Your task to perform on an android device: Search for sushi restaurants on Maps Image 0: 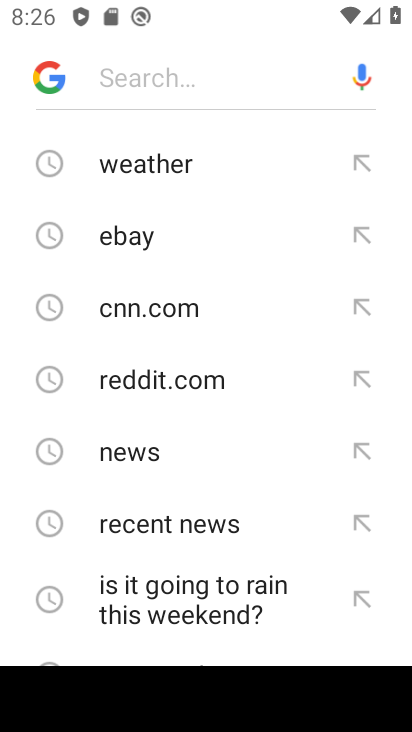
Step 0: press home button
Your task to perform on an android device: Search for sushi restaurants on Maps Image 1: 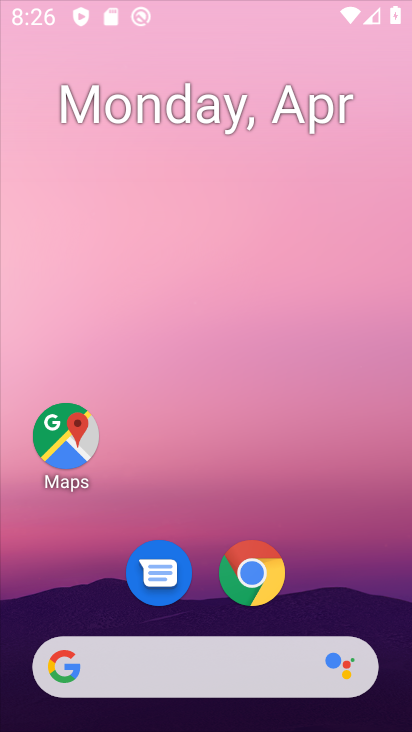
Step 1: press home button
Your task to perform on an android device: Search for sushi restaurants on Maps Image 2: 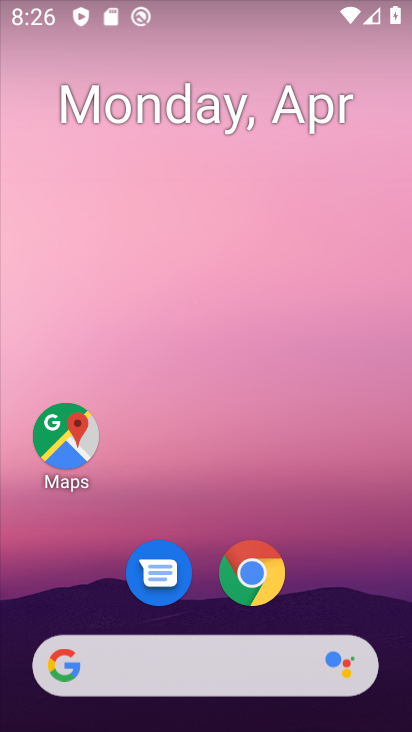
Step 2: click (54, 439)
Your task to perform on an android device: Search for sushi restaurants on Maps Image 3: 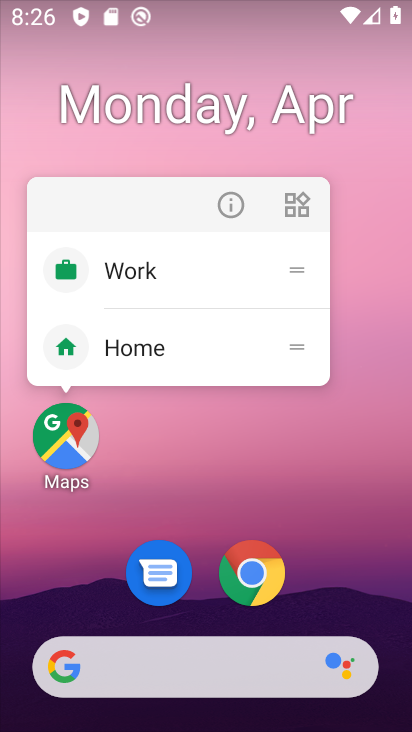
Step 3: click (60, 448)
Your task to perform on an android device: Search for sushi restaurants on Maps Image 4: 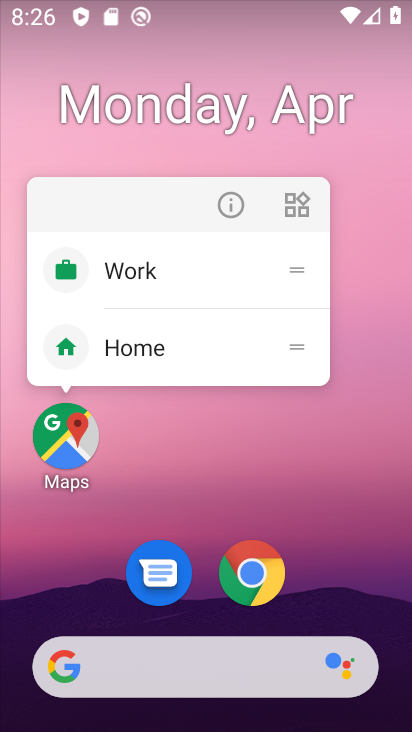
Step 4: click (60, 448)
Your task to perform on an android device: Search for sushi restaurants on Maps Image 5: 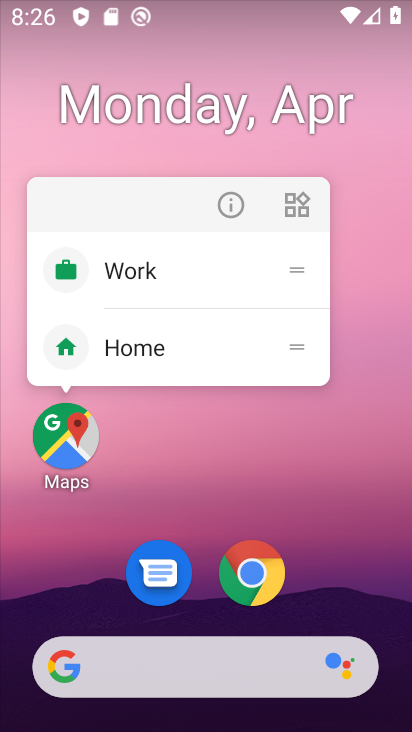
Step 5: click (72, 448)
Your task to perform on an android device: Search for sushi restaurants on Maps Image 6: 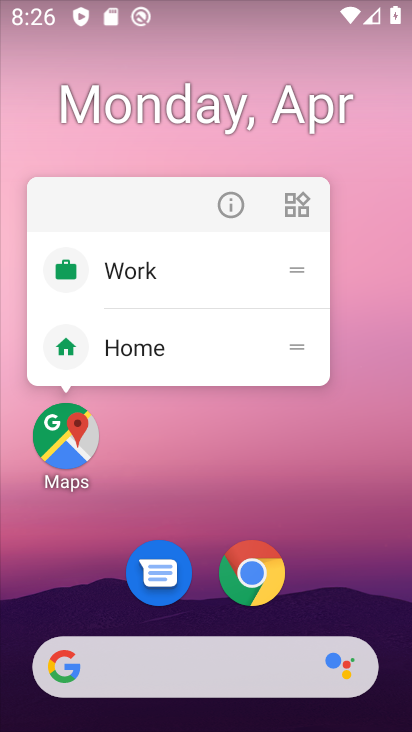
Step 6: click (202, 515)
Your task to perform on an android device: Search for sushi restaurants on Maps Image 7: 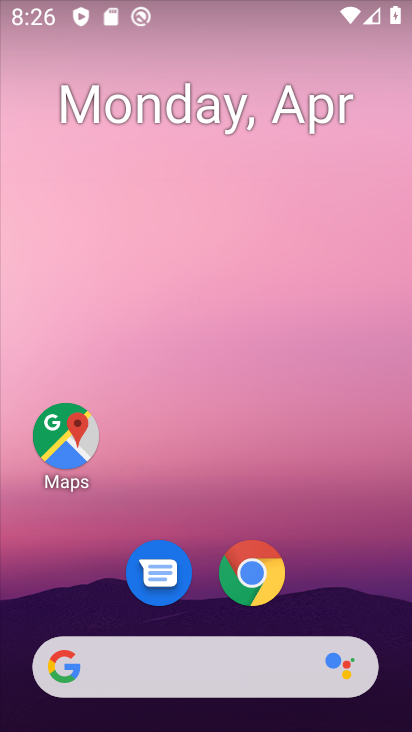
Step 7: click (58, 437)
Your task to perform on an android device: Search for sushi restaurants on Maps Image 8: 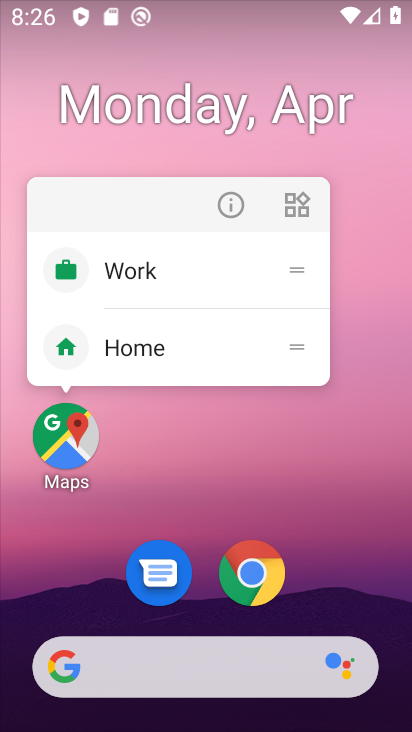
Step 8: drag from (104, 553) to (178, 177)
Your task to perform on an android device: Search for sushi restaurants on Maps Image 9: 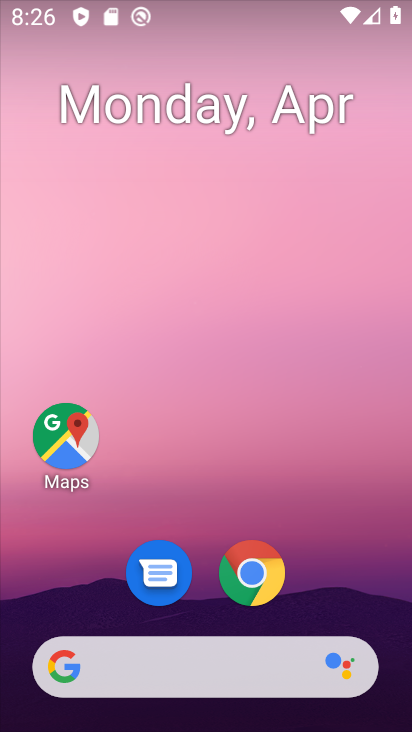
Step 9: drag from (301, 538) to (281, 0)
Your task to perform on an android device: Search for sushi restaurants on Maps Image 10: 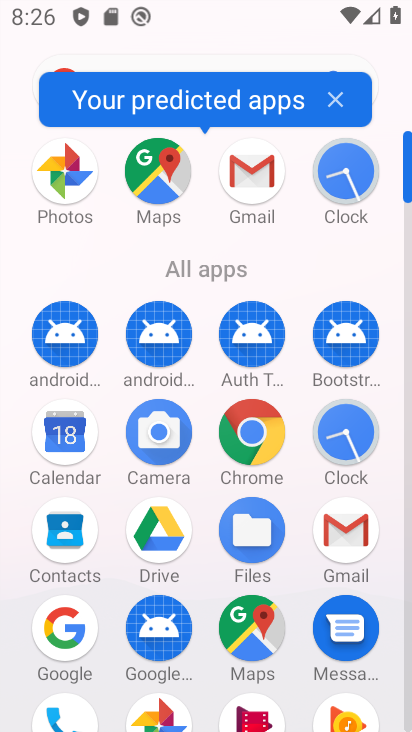
Step 10: click (243, 637)
Your task to perform on an android device: Search for sushi restaurants on Maps Image 11: 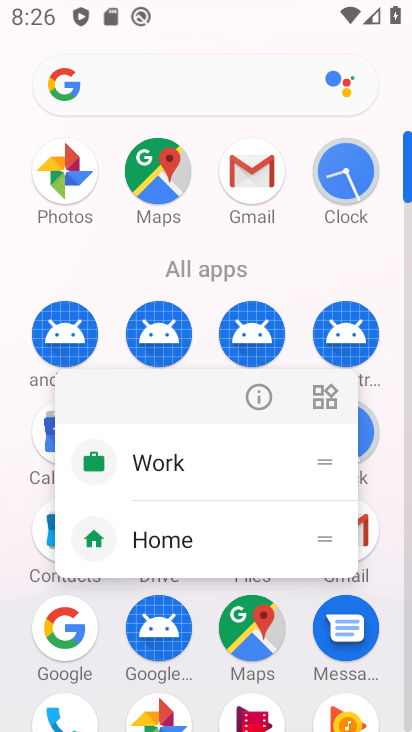
Step 11: click (243, 637)
Your task to perform on an android device: Search for sushi restaurants on Maps Image 12: 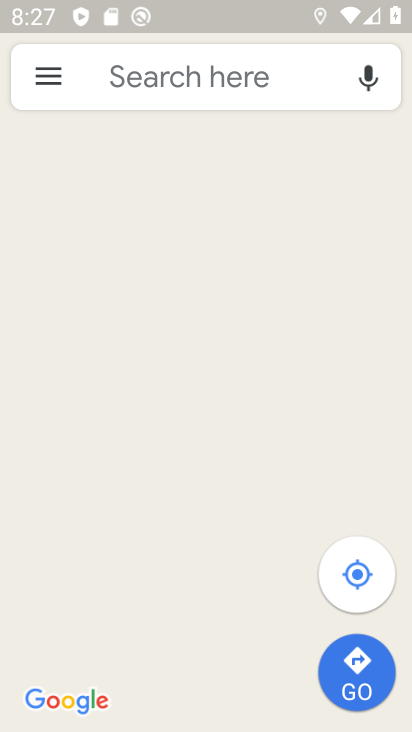
Step 12: click (199, 72)
Your task to perform on an android device: Search for sushi restaurants on Maps Image 13: 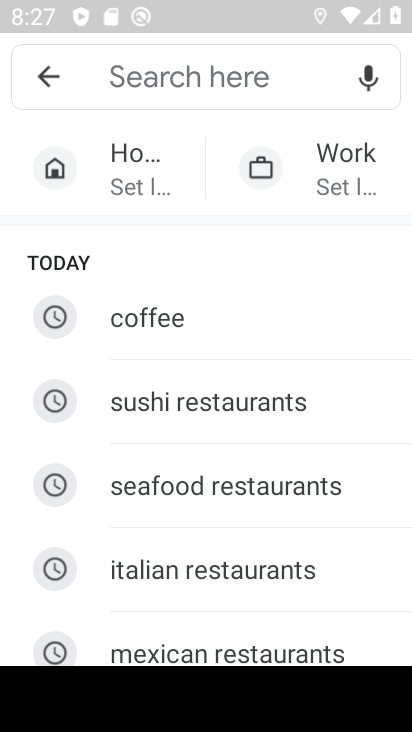
Step 13: click (180, 400)
Your task to perform on an android device: Search for sushi restaurants on Maps Image 14: 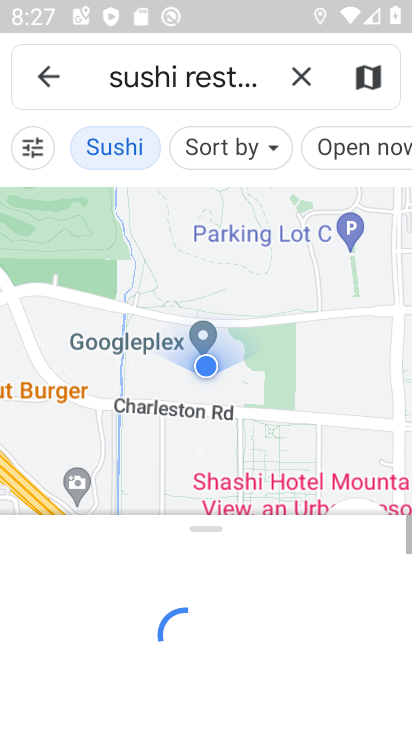
Step 14: task complete